Your task to perform on an android device: Open ESPN.com Image 0: 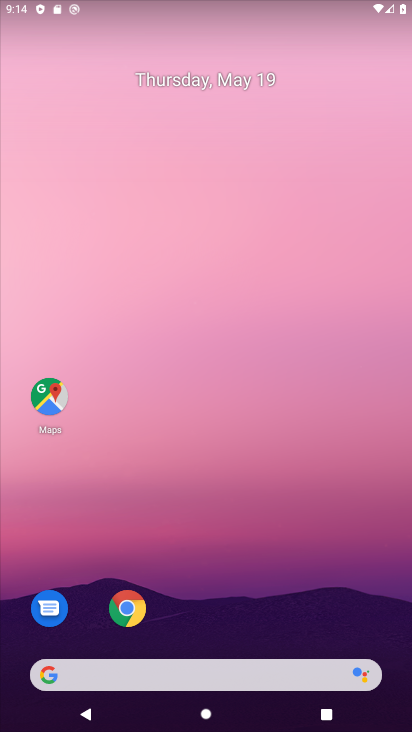
Step 0: drag from (162, 453) to (167, 318)
Your task to perform on an android device: Open ESPN.com Image 1: 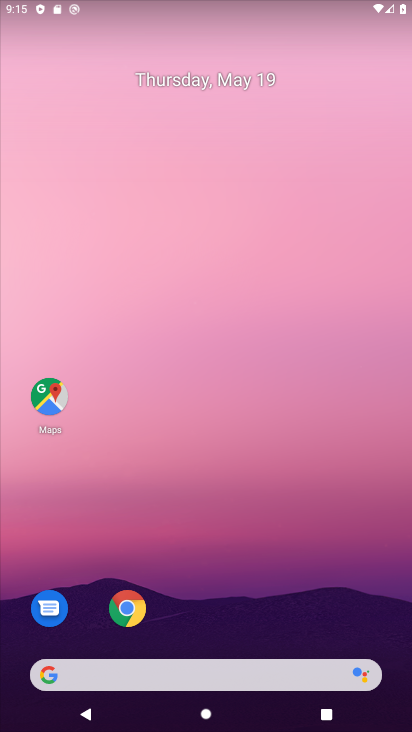
Step 1: click (127, 612)
Your task to perform on an android device: Open ESPN.com Image 2: 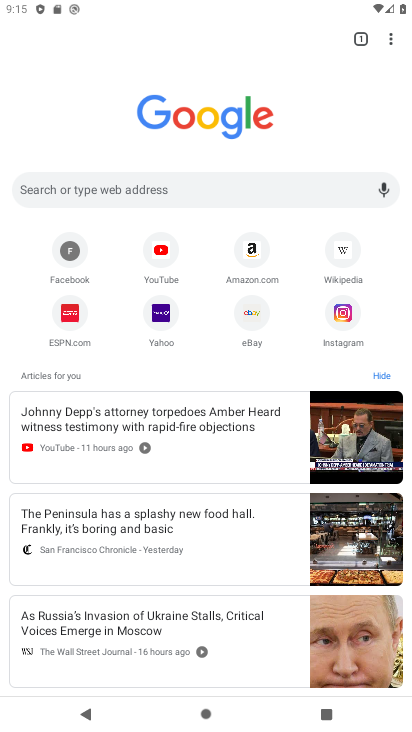
Step 2: click (114, 190)
Your task to perform on an android device: Open ESPN.com Image 3: 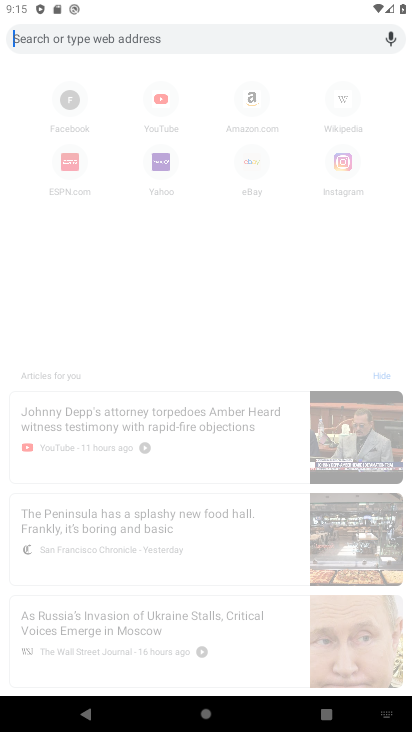
Step 3: type "ESPN"
Your task to perform on an android device: Open ESPN.com Image 4: 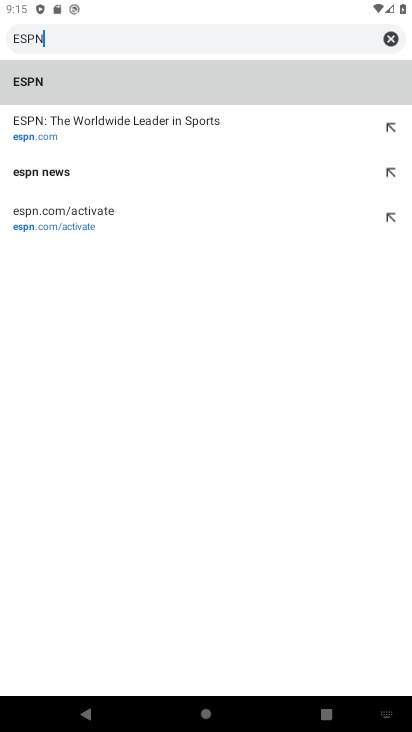
Step 4: type ".com"
Your task to perform on an android device: Open ESPN.com Image 5: 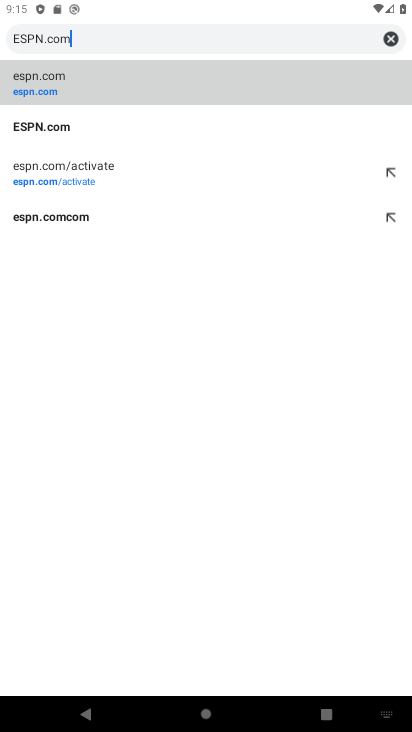
Step 5: click (45, 95)
Your task to perform on an android device: Open ESPN.com Image 6: 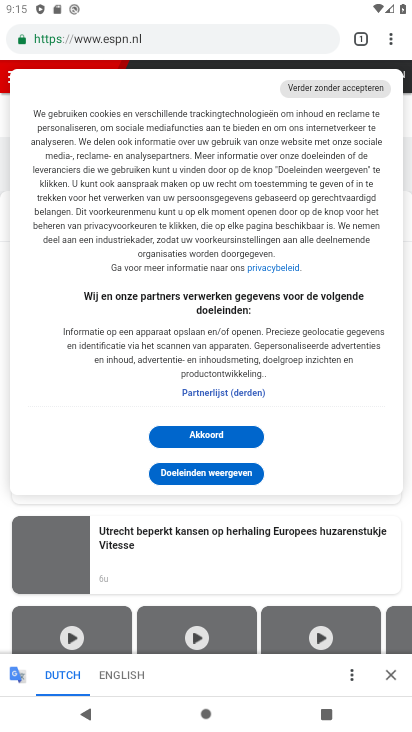
Step 6: task complete